Your task to perform on an android device: What is the recent news? Image 0: 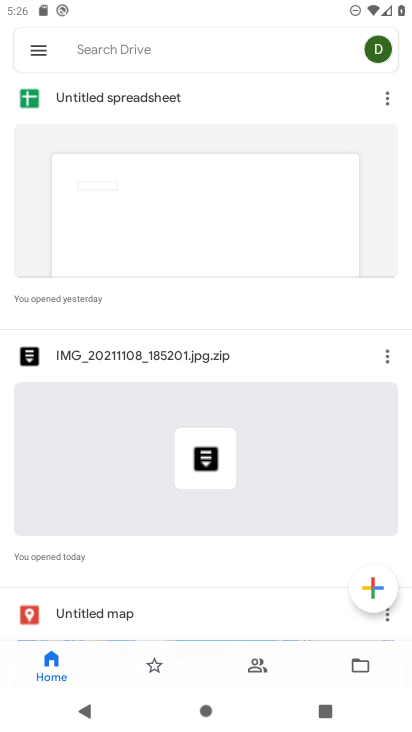
Step 0: press home button
Your task to perform on an android device: What is the recent news? Image 1: 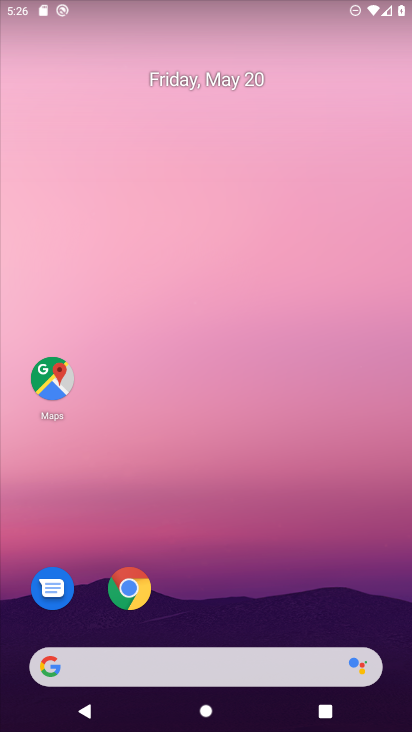
Step 1: drag from (270, 611) to (255, 71)
Your task to perform on an android device: What is the recent news? Image 2: 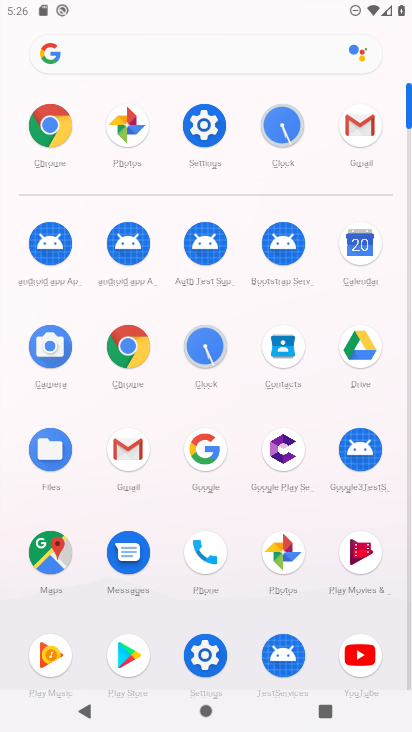
Step 2: click (200, 457)
Your task to perform on an android device: What is the recent news? Image 3: 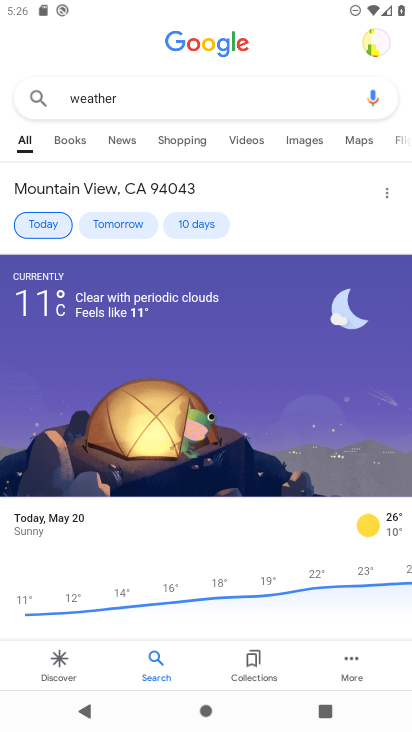
Step 3: click (131, 96)
Your task to perform on an android device: What is the recent news? Image 4: 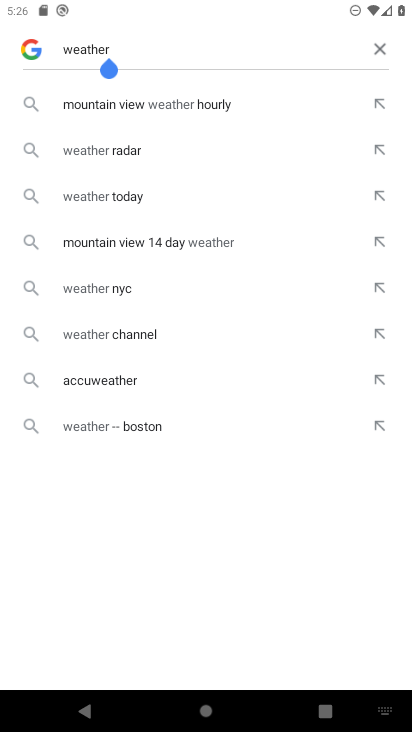
Step 4: click (380, 52)
Your task to perform on an android device: What is the recent news? Image 5: 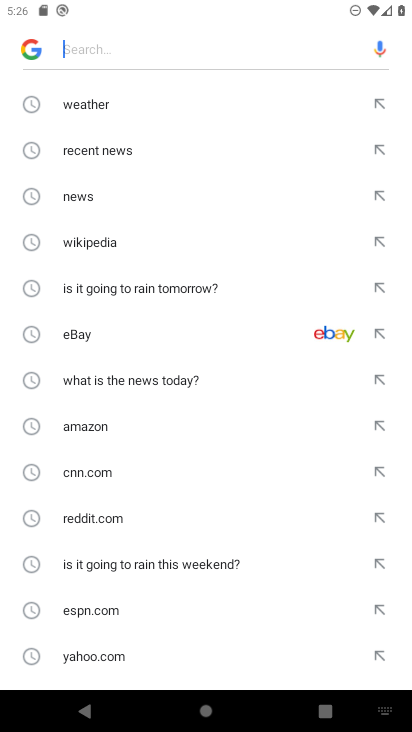
Step 5: click (110, 155)
Your task to perform on an android device: What is the recent news? Image 6: 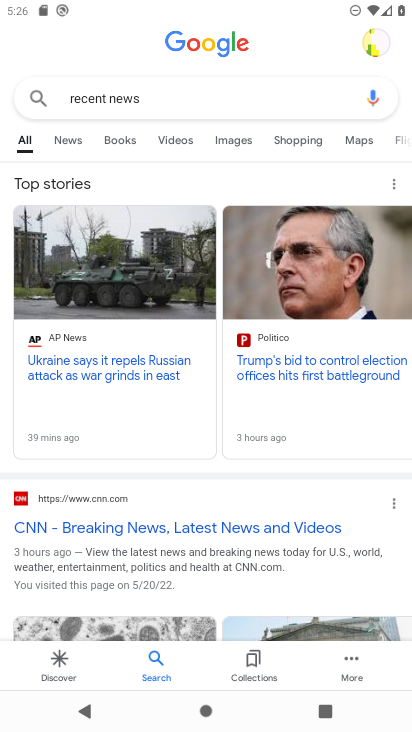
Step 6: task complete